Your task to perform on an android device: Go to Reddit.com Image 0: 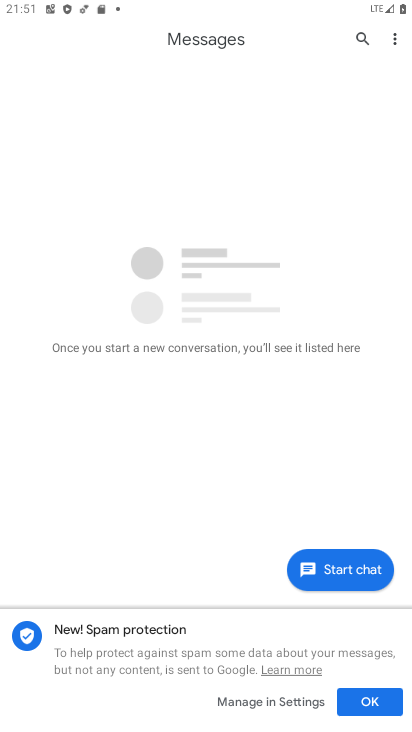
Step 0: press back button
Your task to perform on an android device: Go to Reddit.com Image 1: 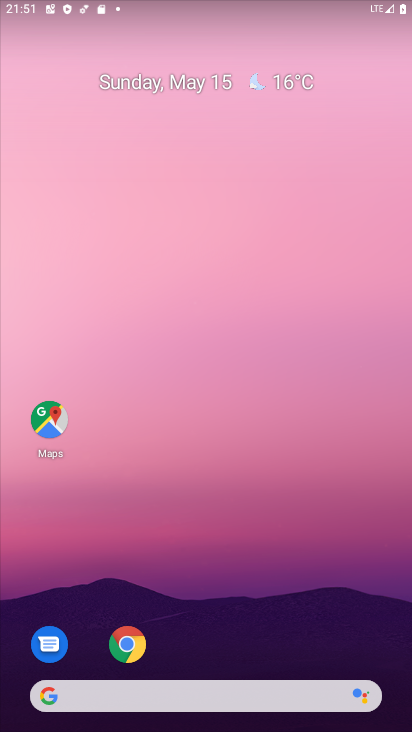
Step 1: click (117, 636)
Your task to perform on an android device: Go to Reddit.com Image 2: 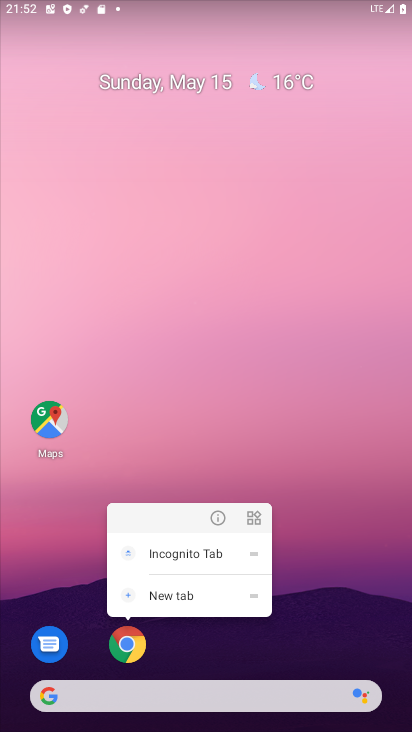
Step 2: click (133, 641)
Your task to perform on an android device: Go to Reddit.com Image 3: 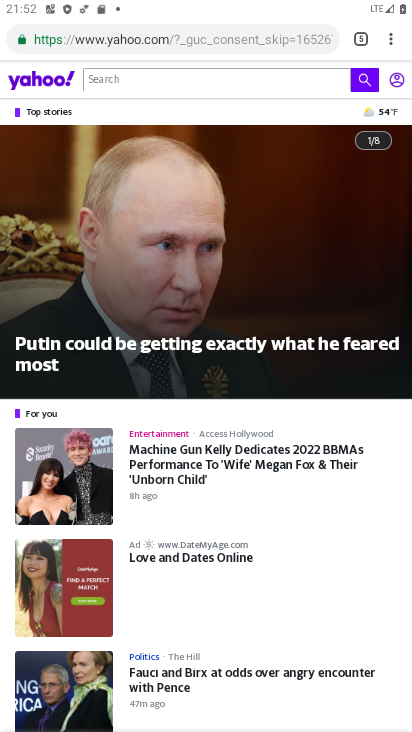
Step 3: click (361, 32)
Your task to perform on an android device: Go to Reddit.com Image 4: 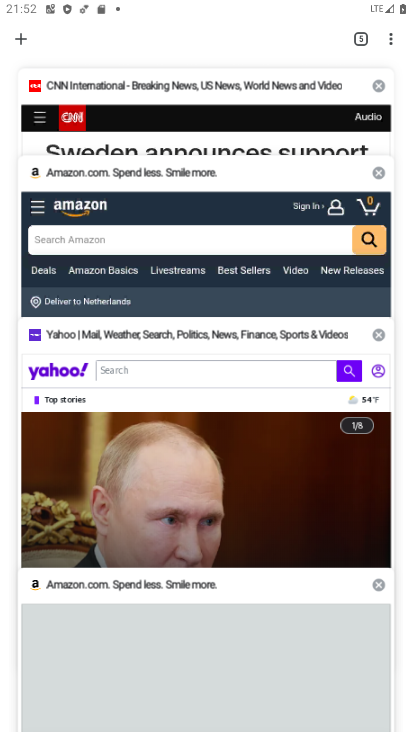
Step 4: click (23, 34)
Your task to perform on an android device: Go to Reddit.com Image 5: 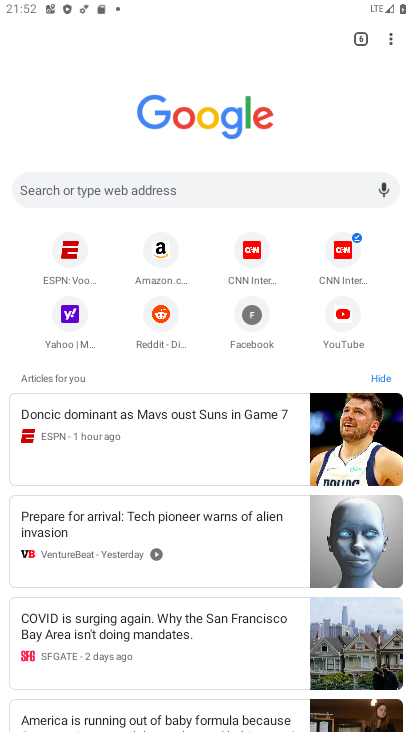
Step 5: click (163, 318)
Your task to perform on an android device: Go to Reddit.com Image 6: 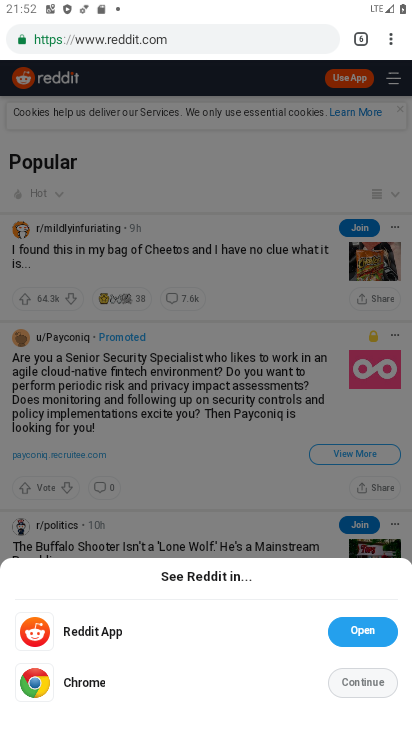
Step 6: task complete